Your task to perform on an android device: Open accessibility settings Image 0: 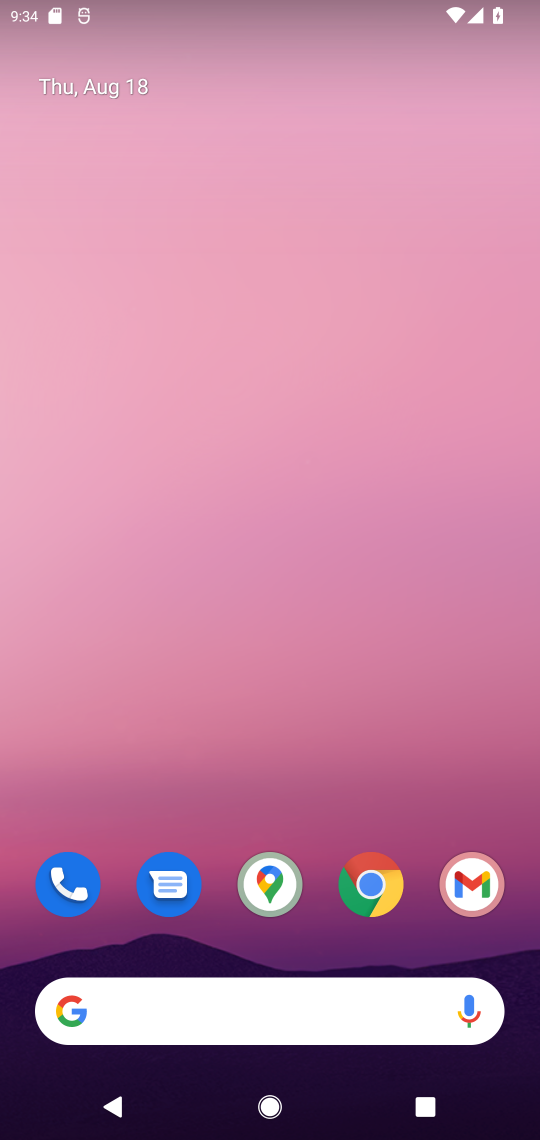
Step 0: drag from (152, 940) to (195, 47)
Your task to perform on an android device: Open accessibility settings Image 1: 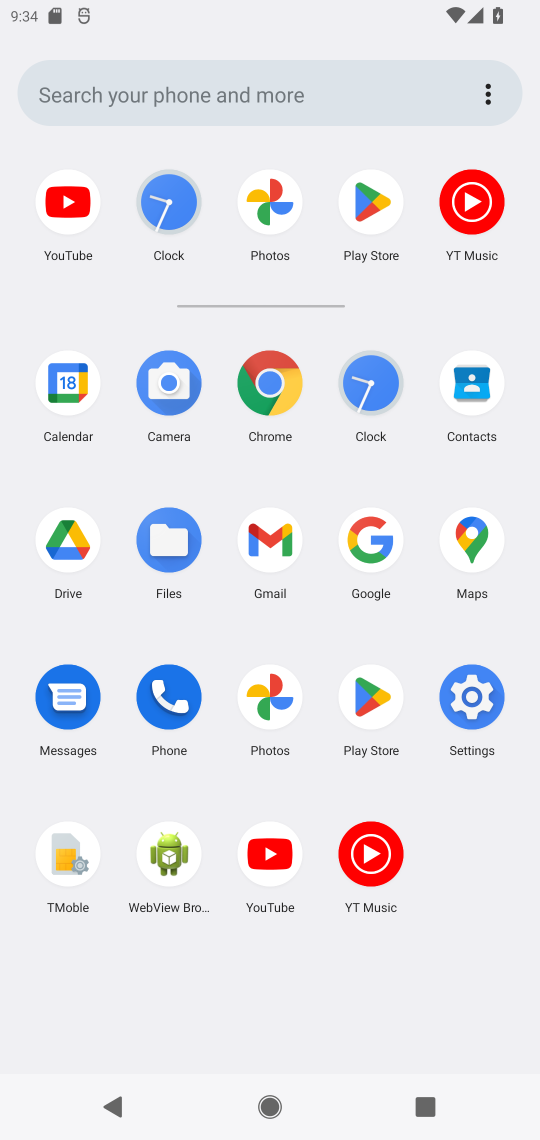
Step 1: click (472, 722)
Your task to perform on an android device: Open accessibility settings Image 2: 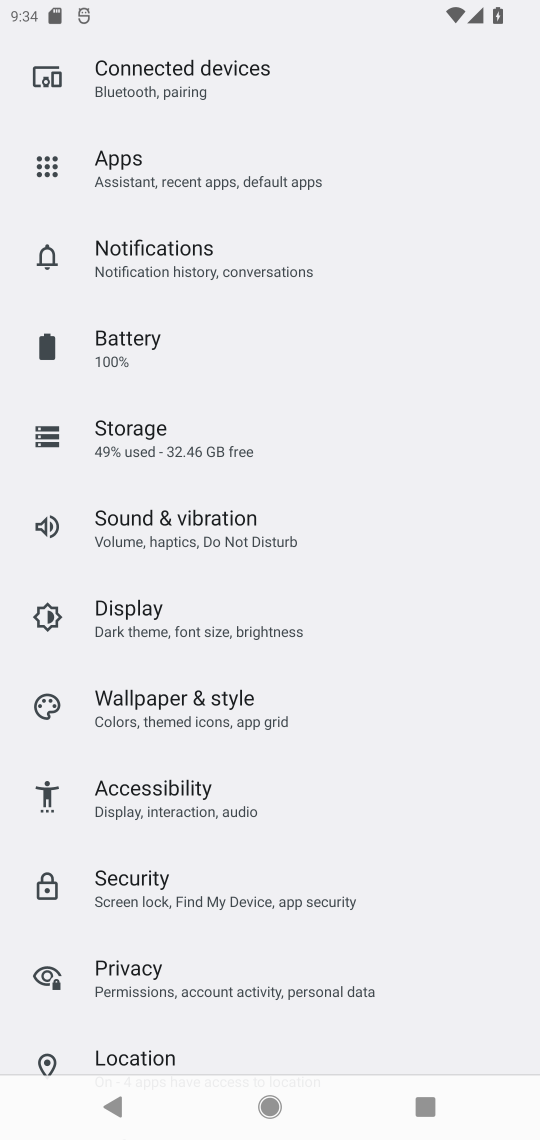
Step 2: click (284, 805)
Your task to perform on an android device: Open accessibility settings Image 3: 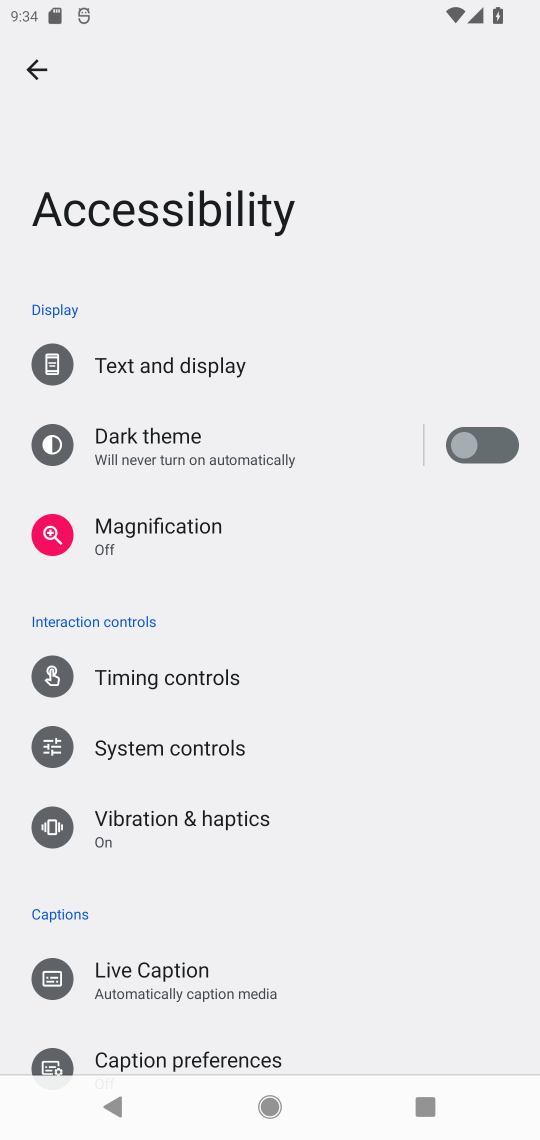
Step 3: task complete